Your task to perform on an android device: Open maps Image 0: 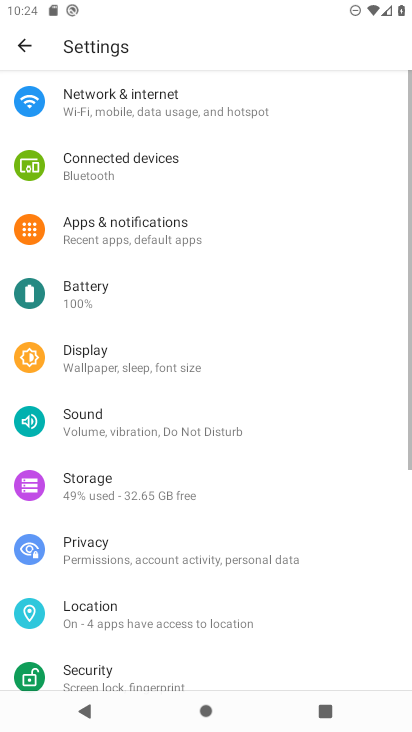
Step 0: press home button
Your task to perform on an android device: Open maps Image 1: 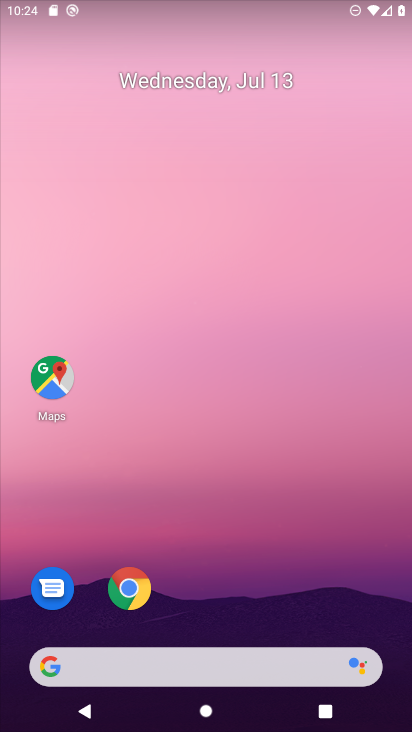
Step 1: drag from (217, 628) to (233, 128)
Your task to perform on an android device: Open maps Image 2: 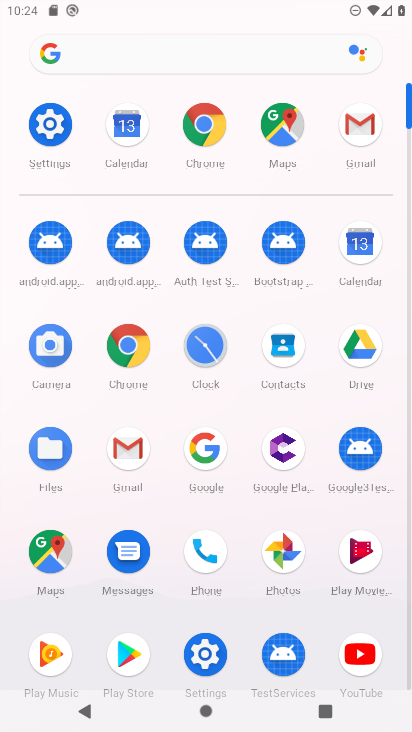
Step 2: click (52, 533)
Your task to perform on an android device: Open maps Image 3: 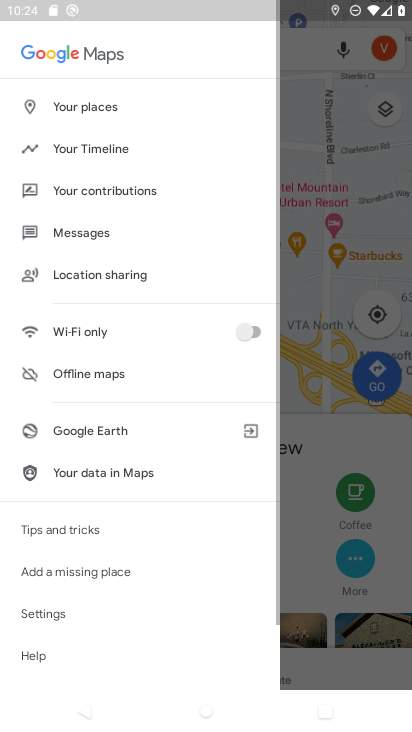
Step 3: click (342, 296)
Your task to perform on an android device: Open maps Image 4: 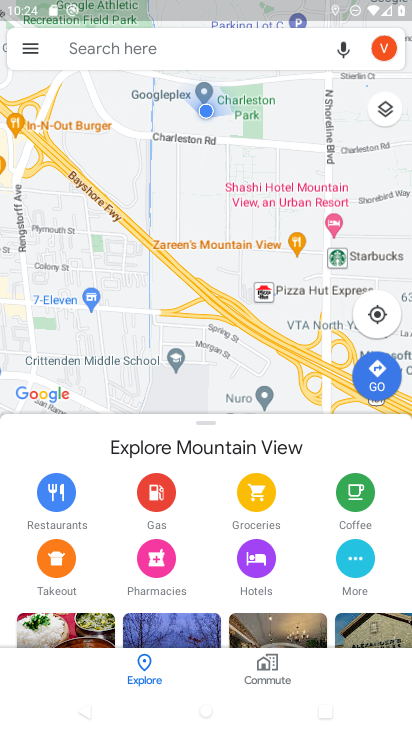
Step 4: task complete